Your task to perform on an android device: clear all cookies in the chrome app Image 0: 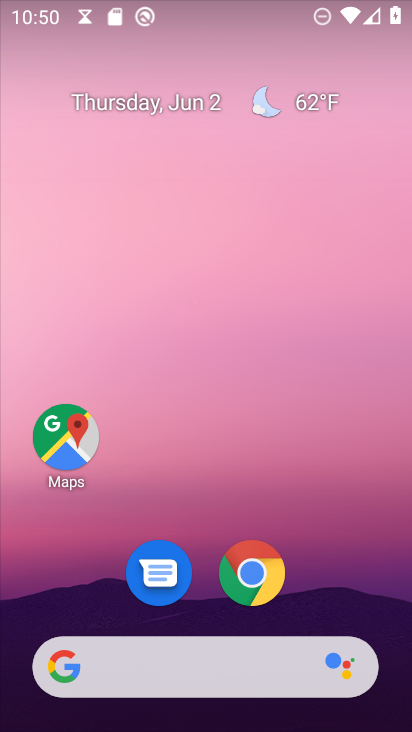
Step 0: click (250, 571)
Your task to perform on an android device: clear all cookies in the chrome app Image 1: 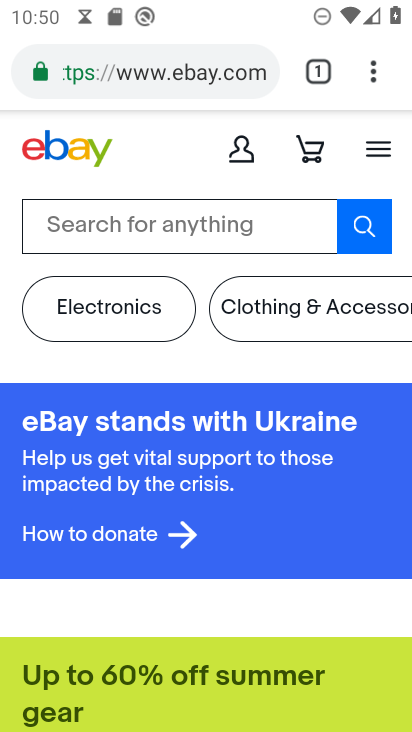
Step 1: click (374, 72)
Your task to perform on an android device: clear all cookies in the chrome app Image 2: 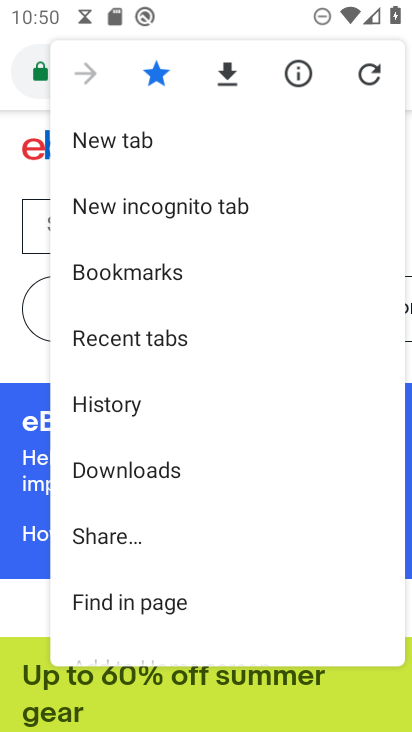
Step 2: drag from (159, 508) to (206, 426)
Your task to perform on an android device: clear all cookies in the chrome app Image 3: 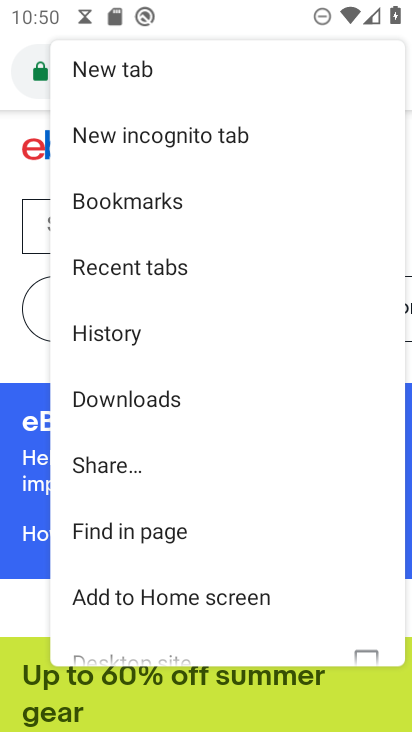
Step 3: drag from (121, 558) to (193, 470)
Your task to perform on an android device: clear all cookies in the chrome app Image 4: 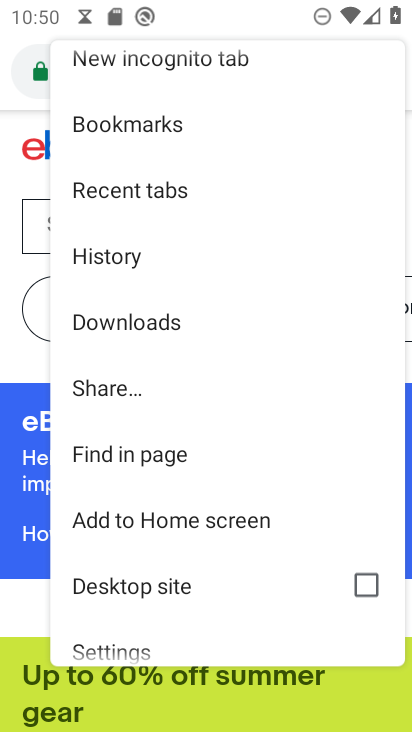
Step 4: drag from (192, 483) to (212, 404)
Your task to perform on an android device: clear all cookies in the chrome app Image 5: 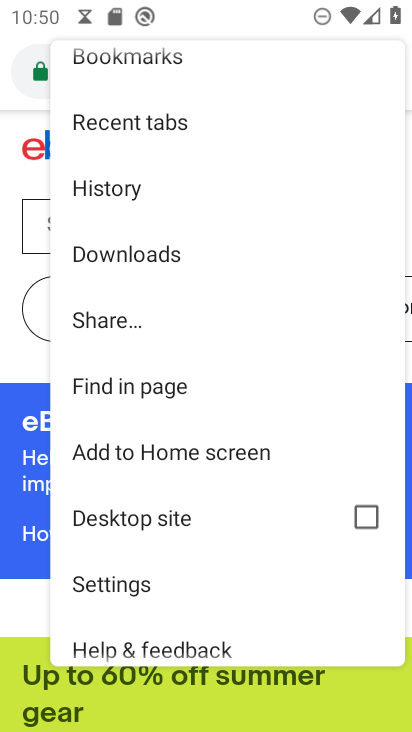
Step 5: drag from (168, 557) to (266, 444)
Your task to perform on an android device: clear all cookies in the chrome app Image 6: 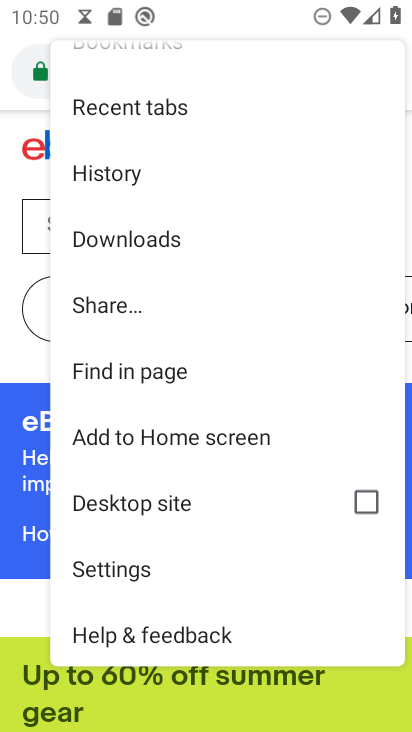
Step 6: click (139, 570)
Your task to perform on an android device: clear all cookies in the chrome app Image 7: 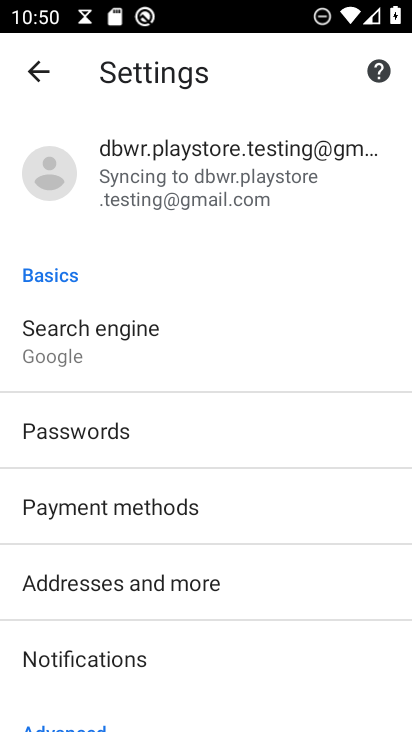
Step 7: drag from (131, 611) to (189, 517)
Your task to perform on an android device: clear all cookies in the chrome app Image 8: 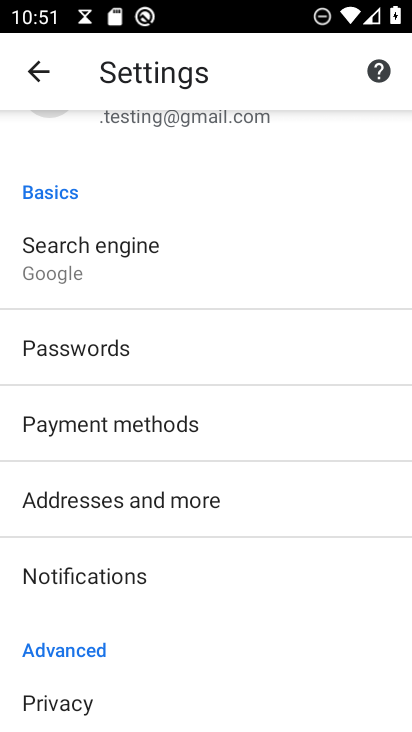
Step 8: drag from (122, 611) to (191, 508)
Your task to perform on an android device: clear all cookies in the chrome app Image 9: 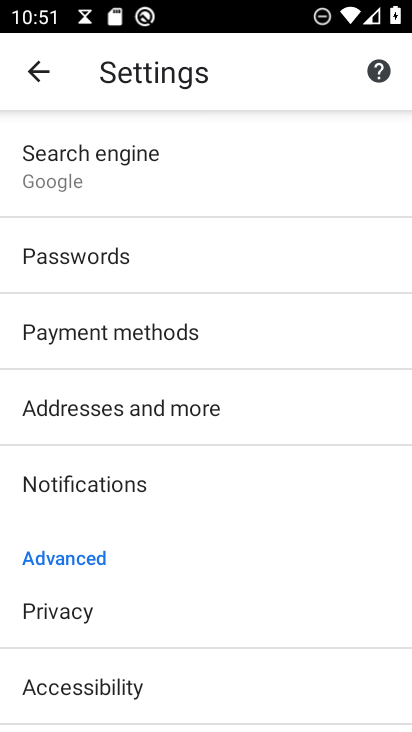
Step 9: click (69, 614)
Your task to perform on an android device: clear all cookies in the chrome app Image 10: 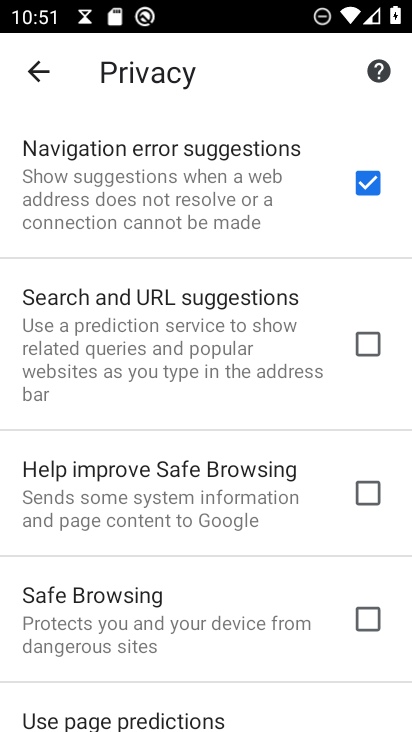
Step 10: drag from (208, 591) to (230, 505)
Your task to perform on an android device: clear all cookies in the chrome app Image 11: 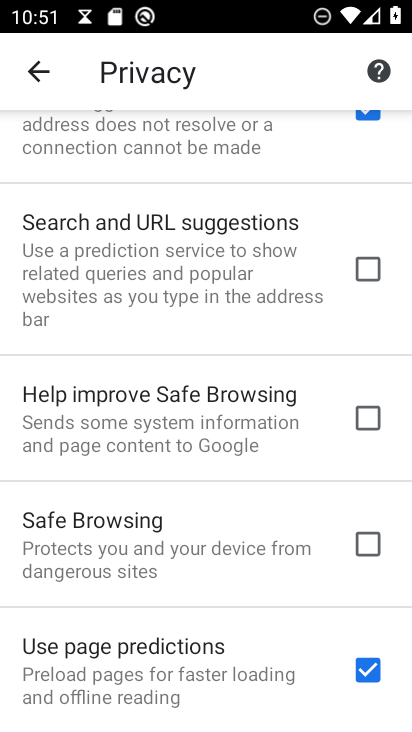
Step 11: drag from (244, 624) to (275, 530)
Your task to perform on an android device: clear all cookies in the chrome app Image 12: 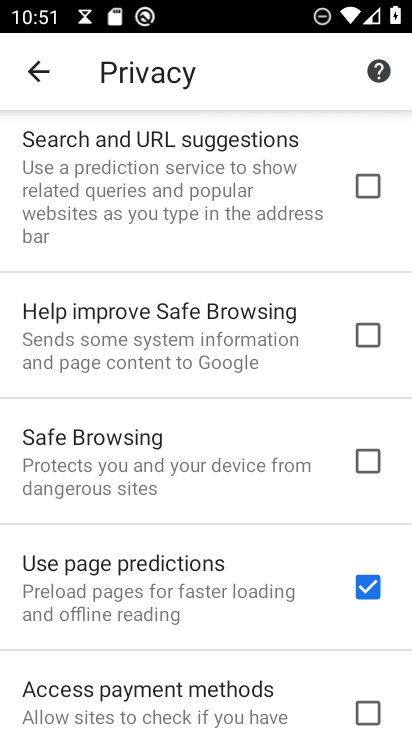
Step 12: drag from (222, 635) to (265, 529)
Your task to perform on an android device: clear all cookies in the chrome app Image 13: 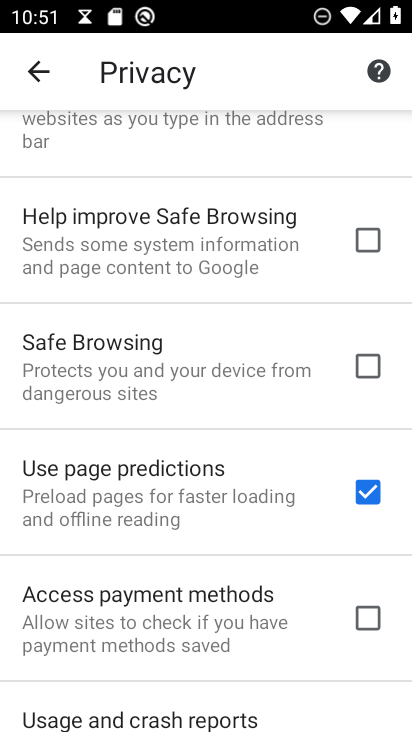
Step 13: drag from (240, 664) to (271, 532)
Your task to perform on an android device: clear all cookies in the chrome app Image 14: 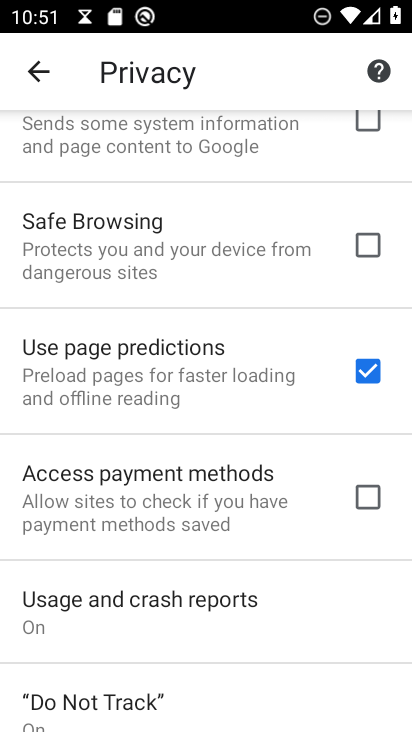
Step 14: drag from (188, 647) to (291, 513)
Your task to perform on an android device: clear all cookies in the chrome app Image 15: 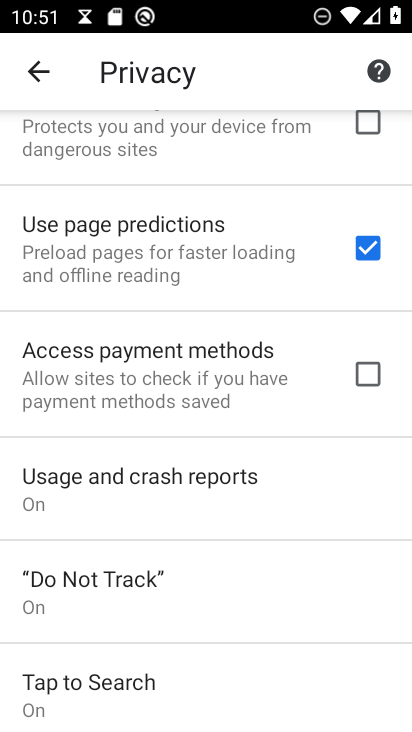
Step 15: drag from (176, 603) to (226, 504)
Your task to perform on an android device: clear all cookies in the chrome app Image 16: 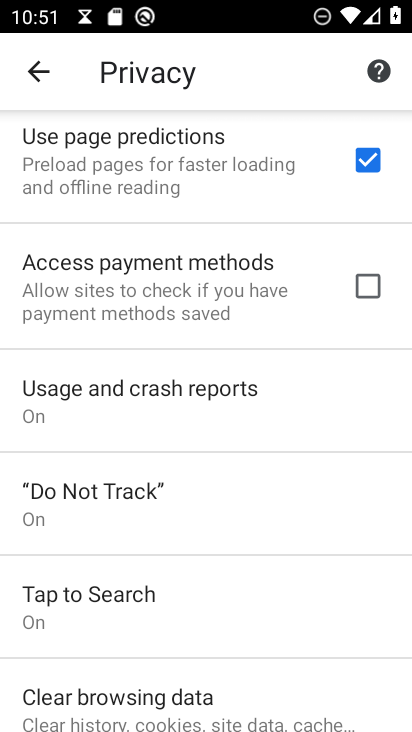
Step 16: drag from (160, 629) to (245, 519)
Your task to perform on an android device: clear all cookies in the chrome app Image 17: 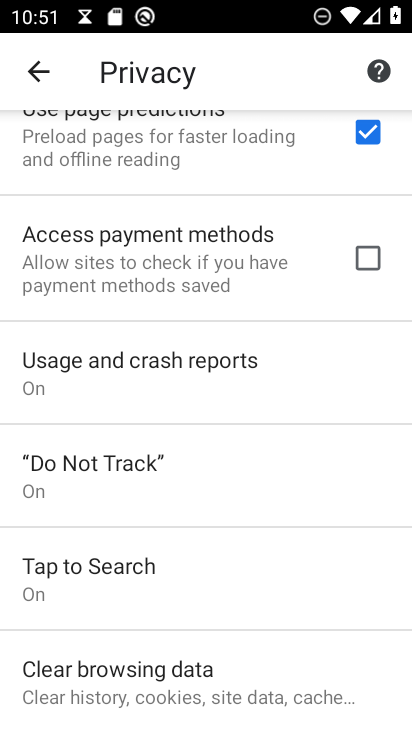
Step 17: click (175, 681)
Your task to perform on an android device: clear all cookies in the chrome app Image 18: 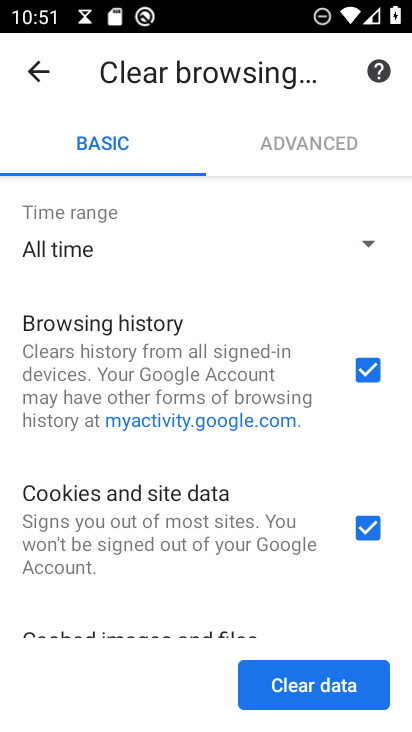
Step 18: click (358, 367)
Your task to perform on an android device: clear all cookies in the chrome app Image 19: 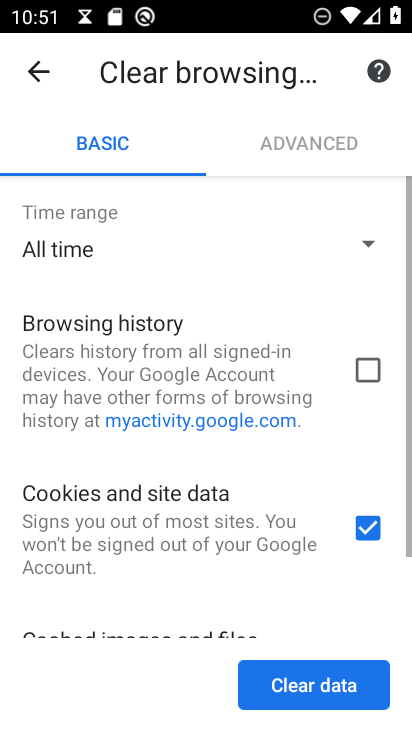
Step 19: drag from (231, 471) to (328, 277)
Your task to perform on an android device: clear all cookies in the chrome app Image 20: 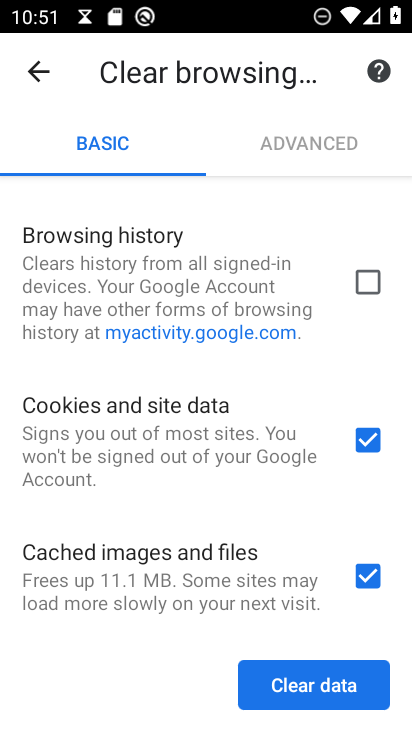
Step 20: click (380, 564)
Your task to perform on an android device: clear all cookies in the chrome app Image 21: 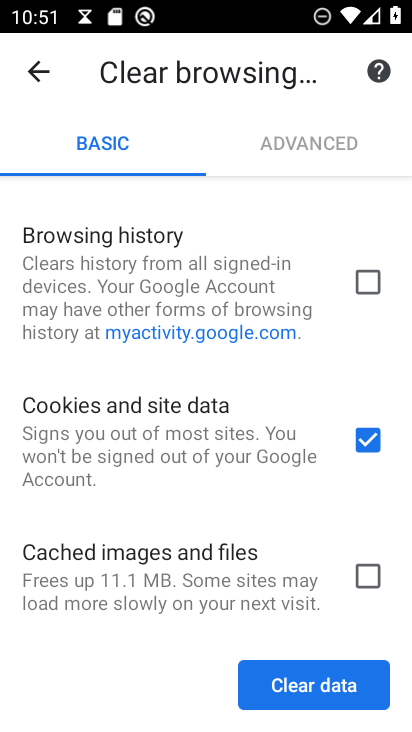
Step 21: click (320, 682)
Your task to perform on an android device: clear all cookies in the chrome app Image 22: 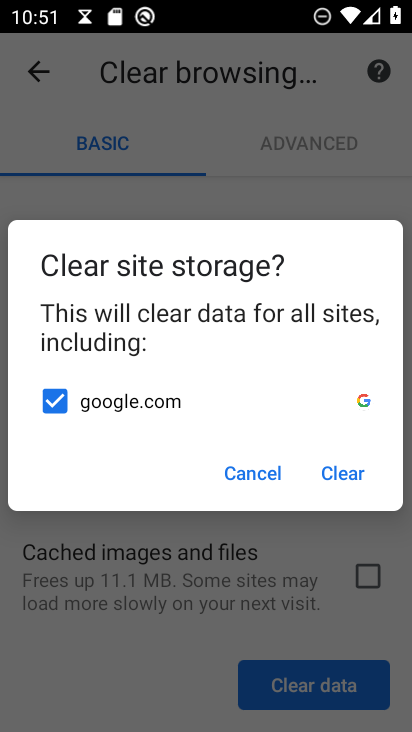
Step 22: click (351, 476)
Your task to perform on an android device: clear all cookies in the chrome app Image 23: 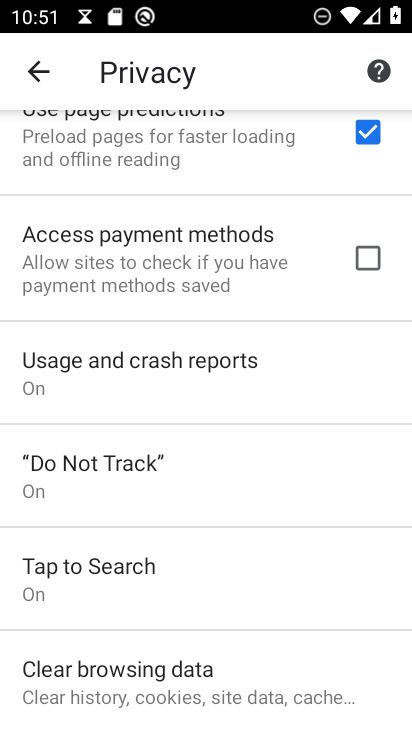
Step 23: task complete